Your task to perform on an android device: change text size in settings app Image 0: 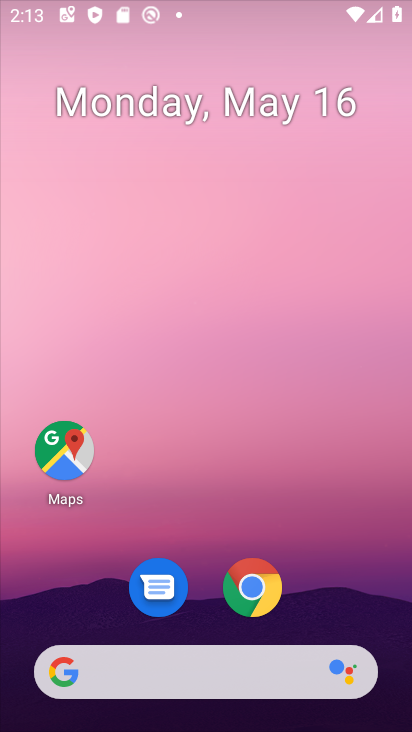
Step 0: drag from (235, 715) to (192, 250)
Your task to perform on an android device: change text size in settings app Image 1: 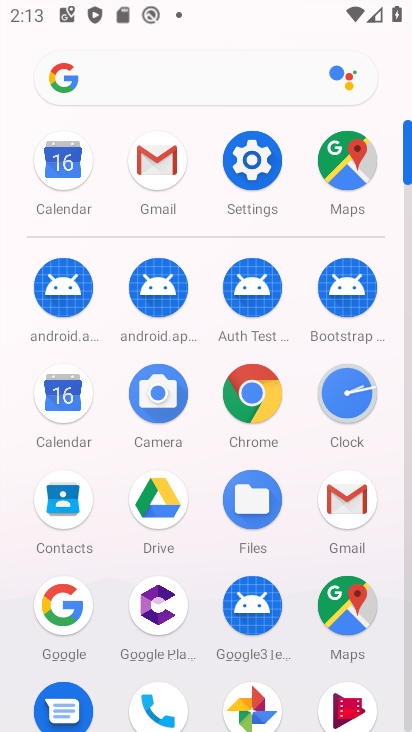
Step 1: click (255, 165)
Your task to perform on an android device: change text size in settings app Image 2: 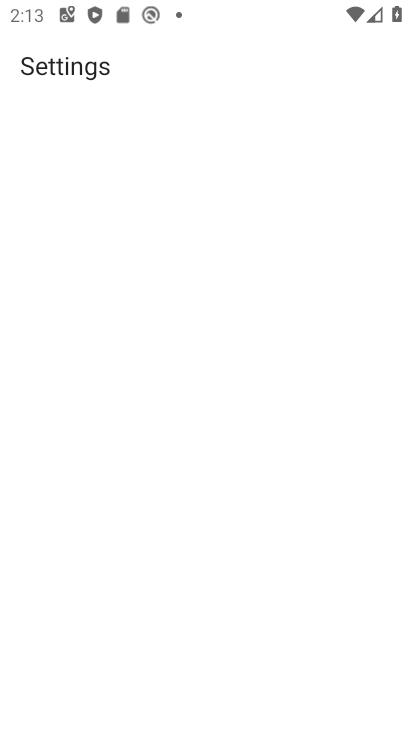
Step 2: click (255, 165)
Your task to perform on an android device: change text size in settings app Image 3: 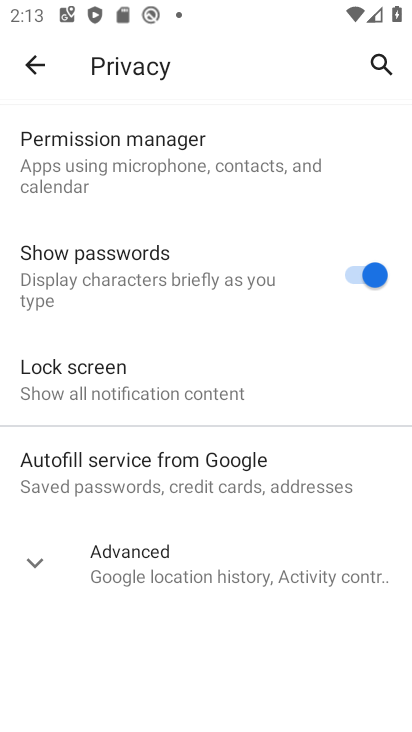
Step 3: click (33, 62)
Your task to perform on an android device: change text size in settings app Image 4: 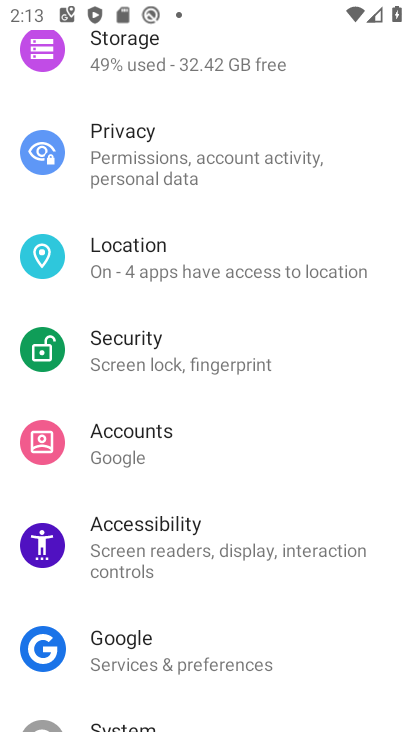
Step 4: drag from (180, 530) to (125, 160)
Your task to perform on an android device: change text size in settings app Image 5: 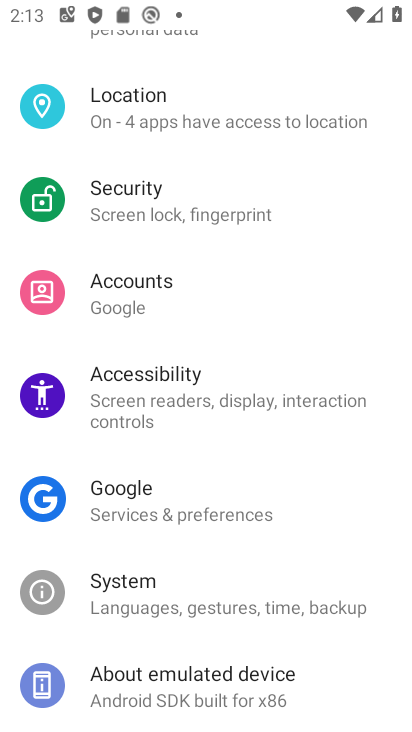
Step 5: drag from (137, 261) to (231, 667)
Your task to perform on an android device: change text size in settings app Image 6: 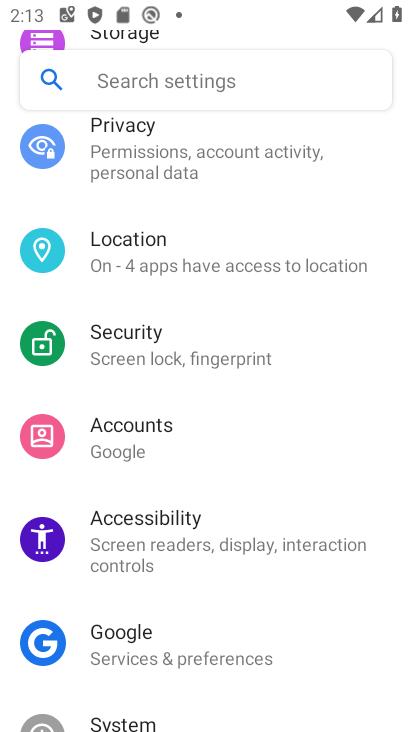
Step 6: drag from (172, 218) to (124, 549)
Your task to perform on an android device: change text size in settings app Image 7: 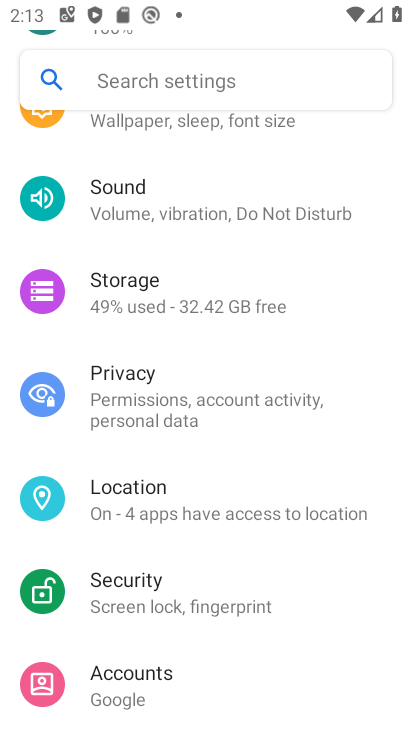
Step 7: click (173, 127)
Your task to perform on an android device: change text size in settings app Image 8: 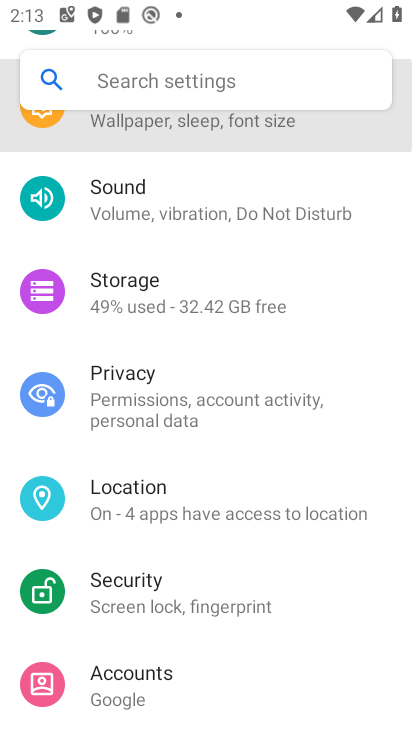
Step 8: click (174, 129)
Your task to perform on an android device: change text size in settings app Image 9: 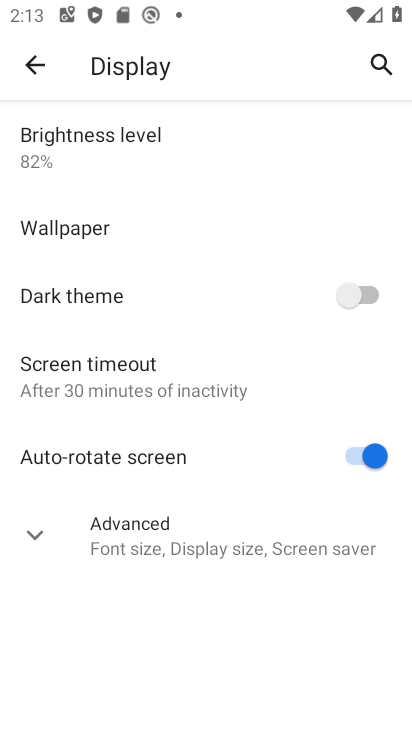
Step 9: click (162, 525)
Your task to perform on an android device: change text size in settings app Image 10: 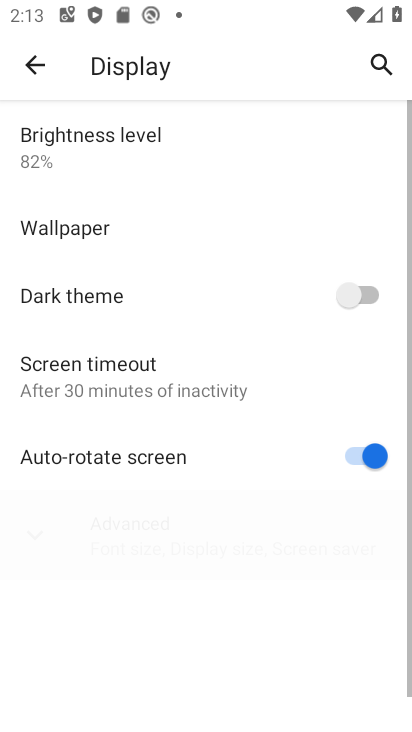
Step 10: click (162, 525)
Your task to perform on an android device: change text size in settings app Image 11: 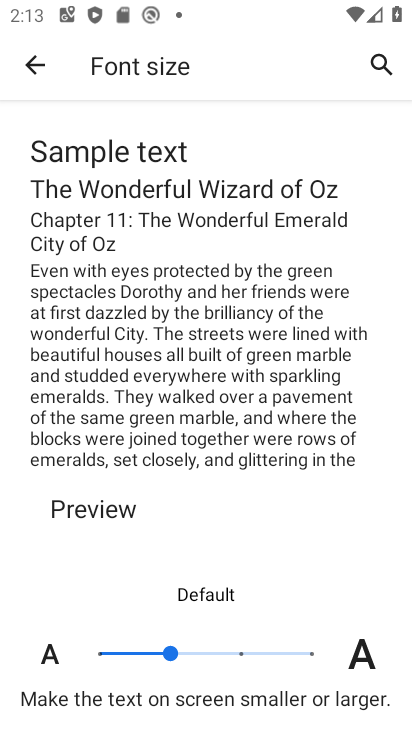
Step 11: click (227, 649)
Your task to perform on an android device: change text size in settings app Image 12: 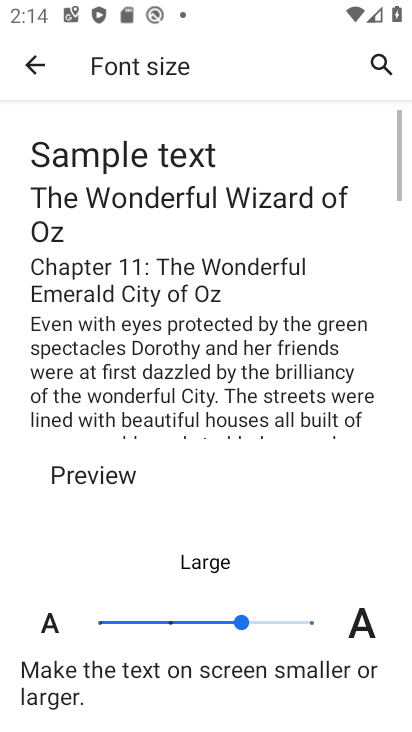
Step 12: task complete